Your task to perform on an android device: toggle show notifications on the lock screen Image 0: 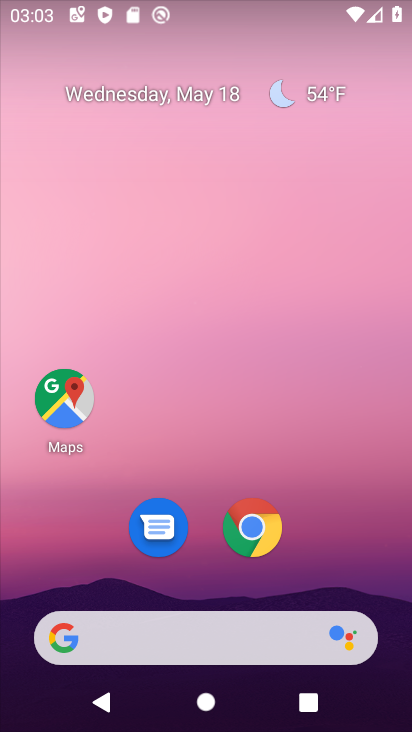
Step 0: drag from (210, 584) to (133, 40)
Your task to perform on an android device: toggle show notifications on the lock screen Image 1: 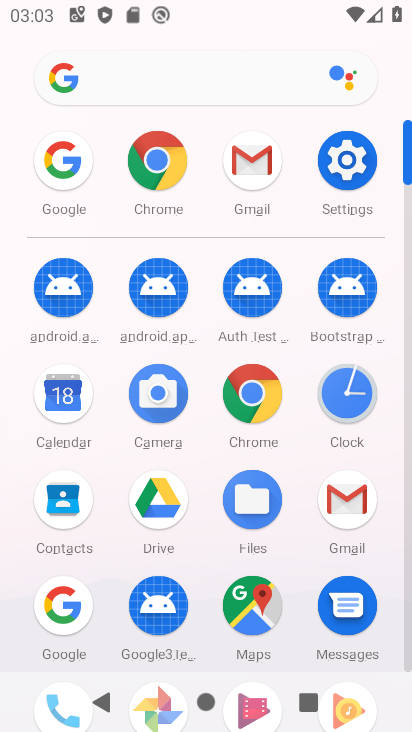
Step 1: click (354, 159)
Your task to perform on an android device: toggle show notifications on the lock screen Image 2: 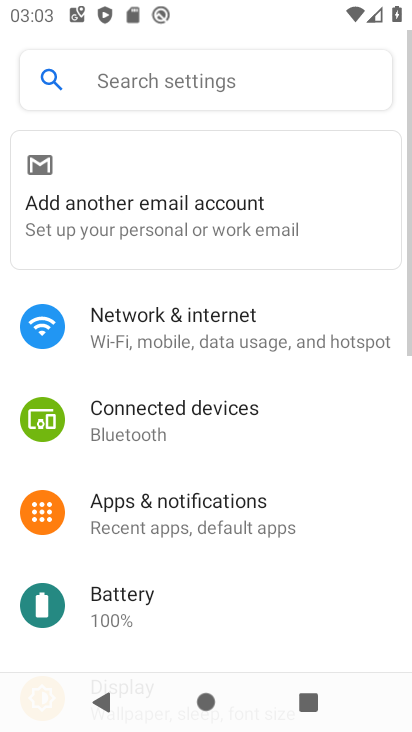
Step 2: drag from (213, 544) to (191, 344)
Your task to perform on an android device: toggle show notifications on the lock screen Image 3: 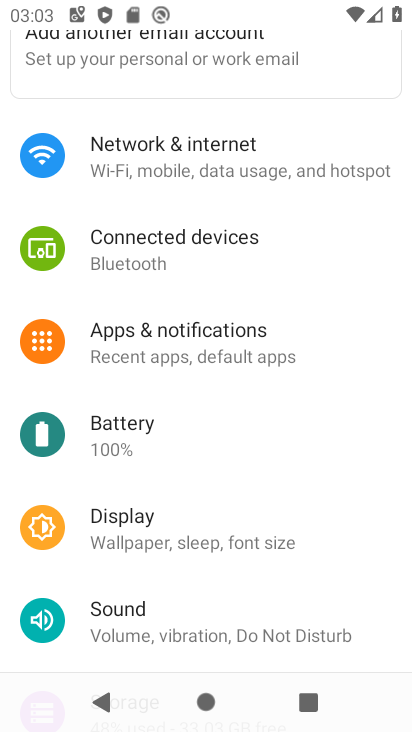
Step 3: click (176, 345)
Your task to perform on an android device: toggle show notifications on the lock screen Image 4: 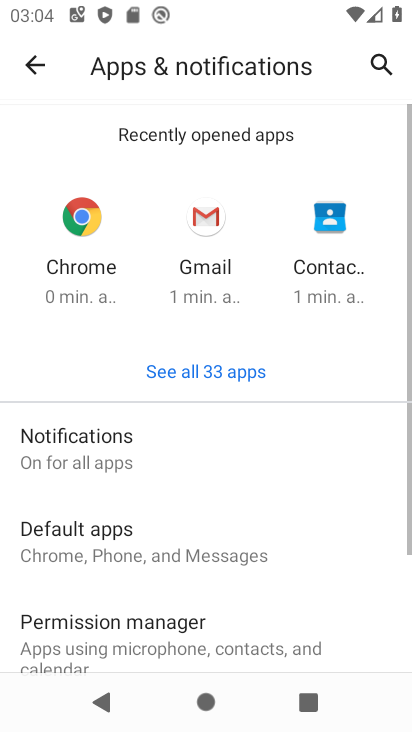
Step 4: click (170, 457)
Your task to perform on an android device: toggle show notifications on the lock screen Image 5: 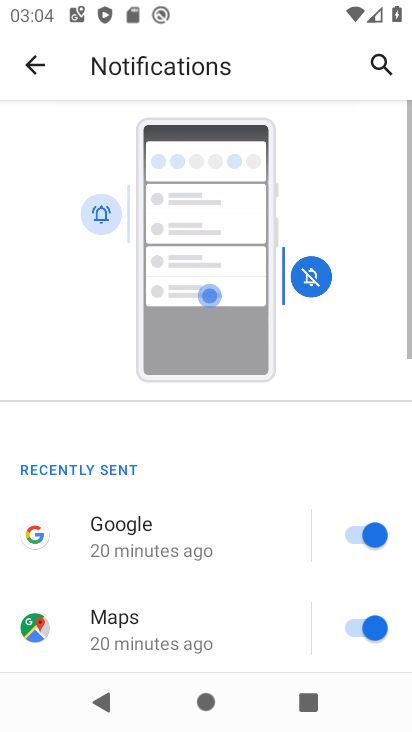
Step 5: drag from (209, 585) to (165, 42)
Your task to perform on an android device: toggle show notifications on the lock screen Image 6: 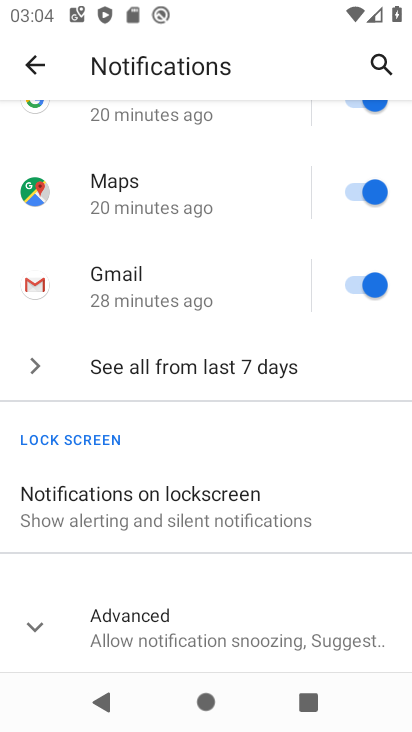
Step 6: click (207, 606)
Your task to perform on an android device: toggle show notifications on the lock screen Image 7: 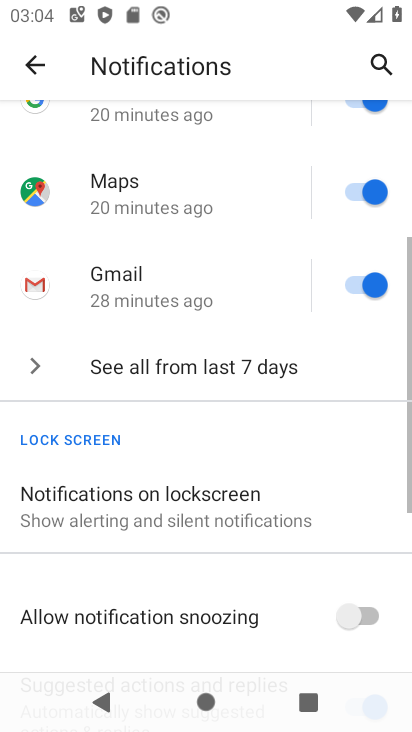
Step 7: click (201, 528)
Your task to perform on an android device: toggle show notifications on the lock screen Image 8: 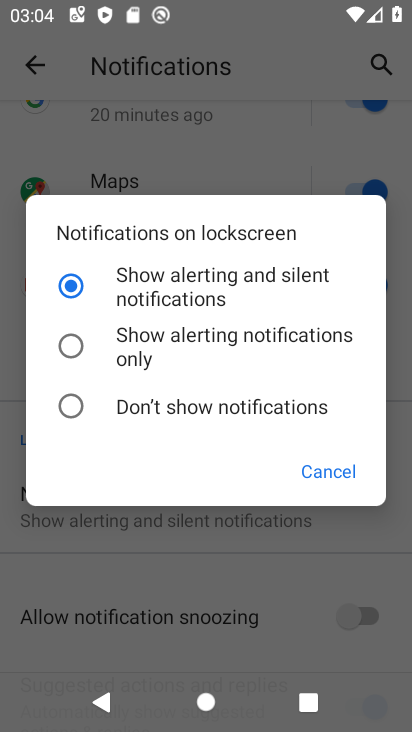
Step 8: click (183, 289)
Your task to perform on an android device: toggle show notifications on the lock screen Image 9: 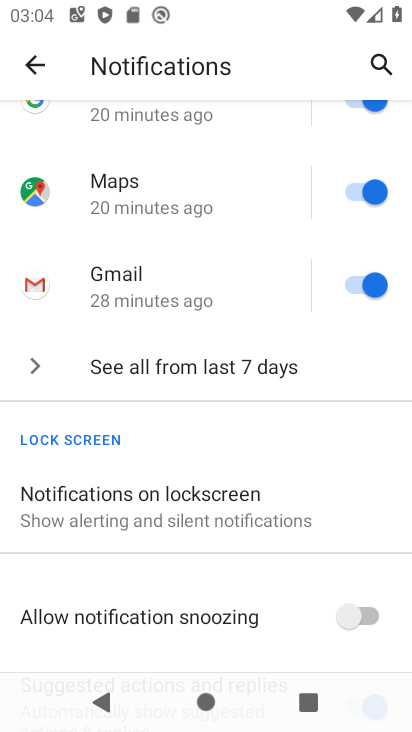
Step 9: task complete